Your task to perform on an android device: snooze an email in the gmail app Image 0: 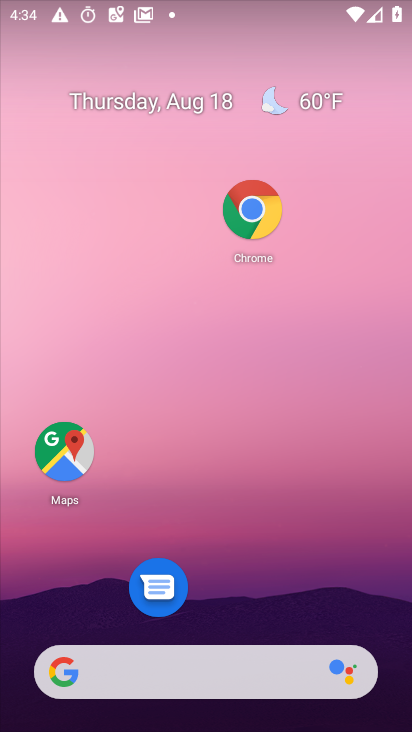
Step 0: drag from (249, 585) to (122, 101)
Your task to perform on an android device: snooze an email in the gmail app Image 1: 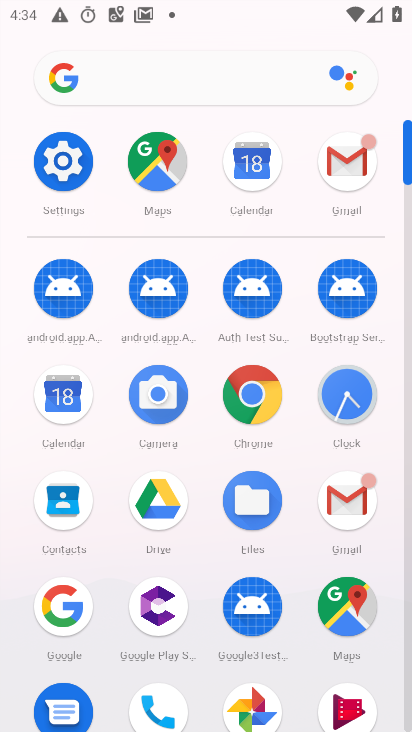
Step 1: click (343, 488)
Your task to perform on an android device: snooze an email in the gmail app Image 2: 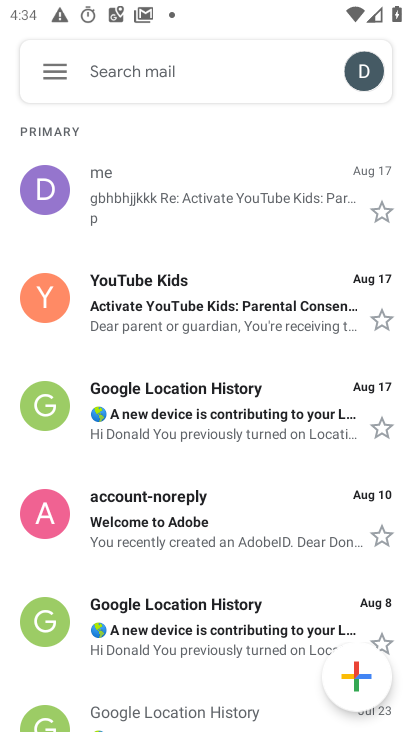
Step 2: click (46, 291)
Your task to perform on an android device: snooze an email in the gmail app Image 3: 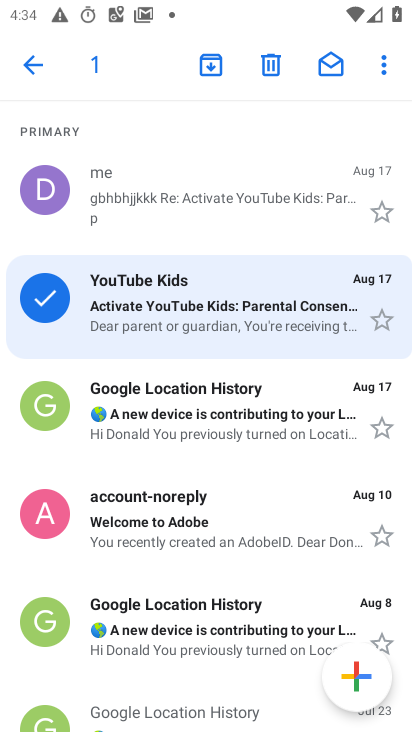
Step 3: click (385, 60)
Your task to perform on an android device: snooze an email in the gmail app Image 4: 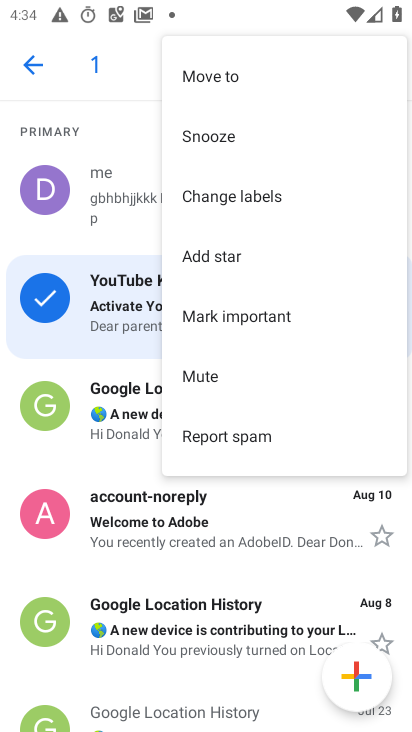
Step 4: click (193, 129)
Your task to perform on an android device: snooze an email in the gmail app Image 5: 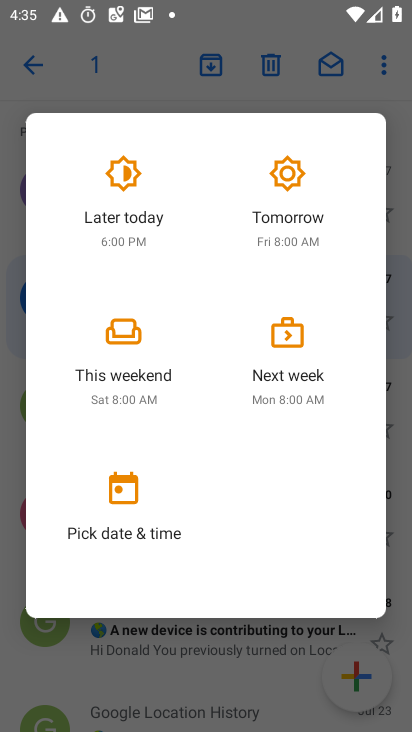
Step 5: click (282, 192)
Your task to perform on an android device: snooze an email in the gmail app Image 6: 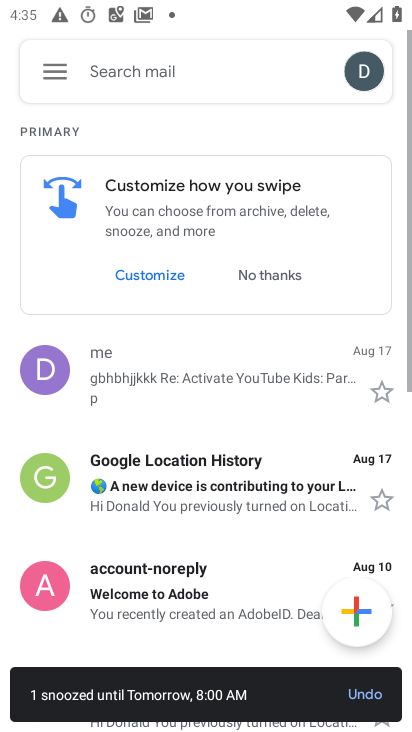
Step 6: task complete